Your task to perform on an android device: open chrome privacy settings Image 0: 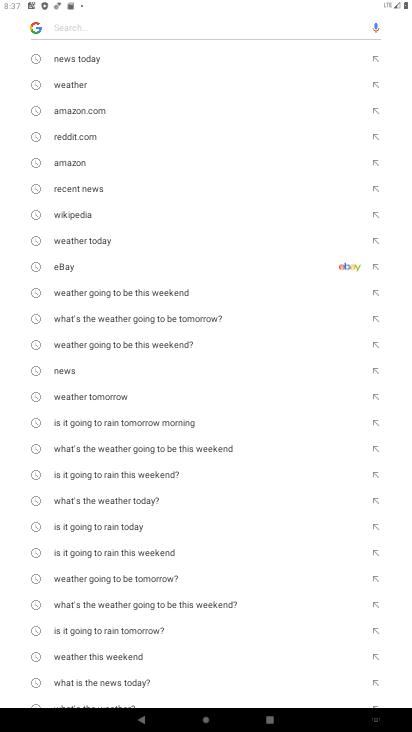
Step 0: press home button
Your task to perform on an android device: open chrome privacy settings Image 1: 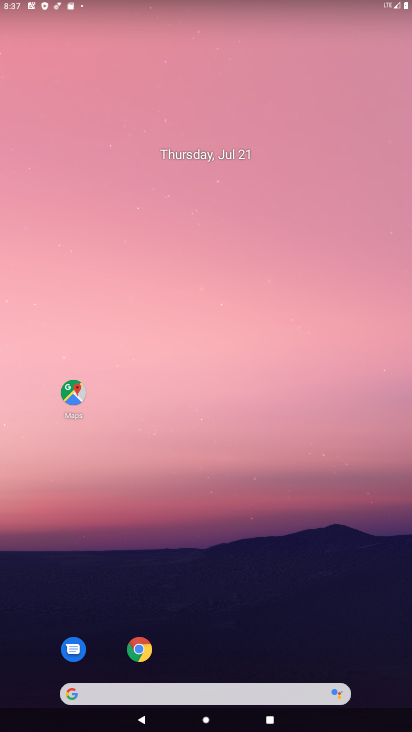
Step 1: drag from (187, 658) to (228, 64)
Your task to perform on an android device: open chrome privacy settings Image 2: 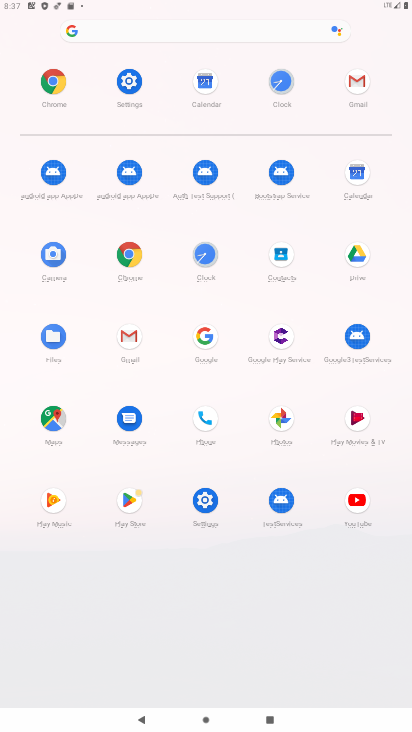
Step 2: click (124, 268)
Your task to perform on an android device: open chrome privacy settings Image 3: 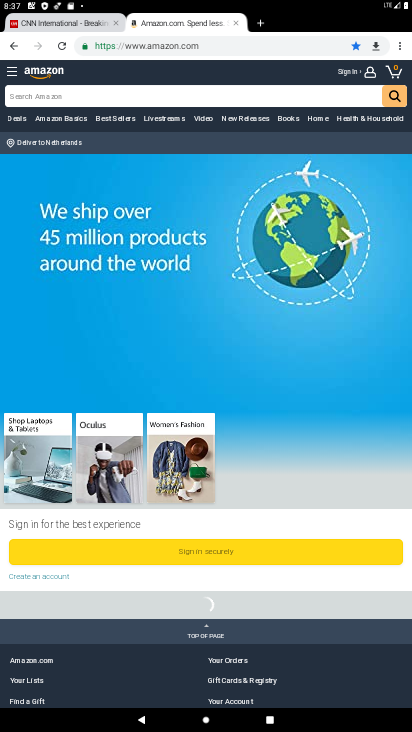
Step 3: click (396, 46)
Your task to perform on an android device: open chrome privacy settings Image 4: 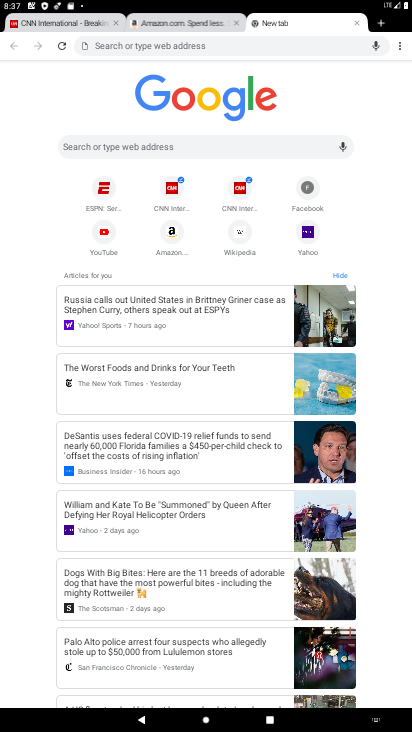
Step 4: click (117, 26)
Your task to perform on an android device: open chrome privacy settings Image 5: 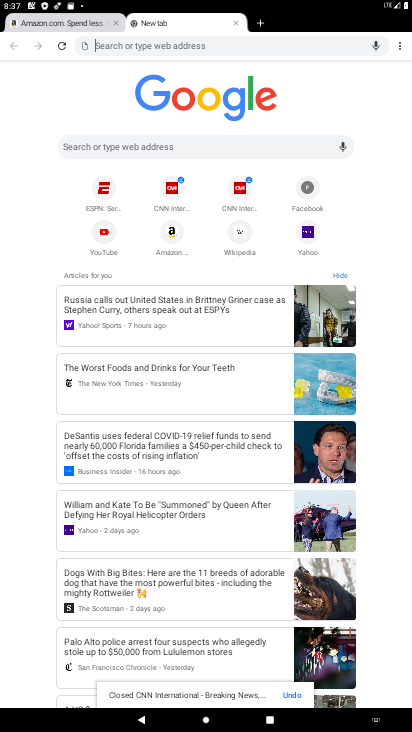
Step 5: click (116, 25)
Your task to perform on an android device: open chrome privacy settings Image 6: 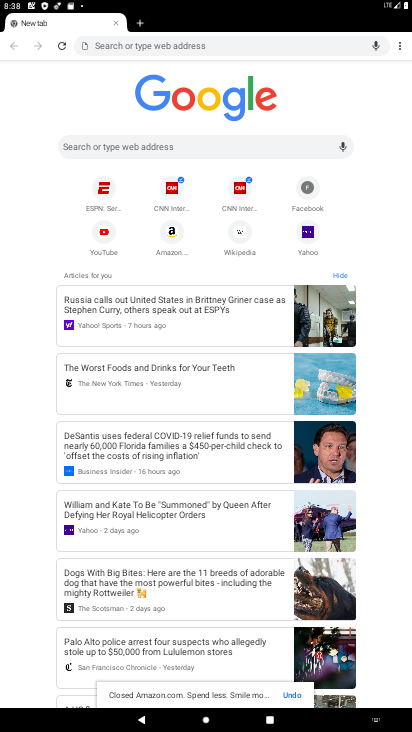
Step 6: click (401, 48)
Your task to perform on an android device: open chrome privacy settings Image 7: 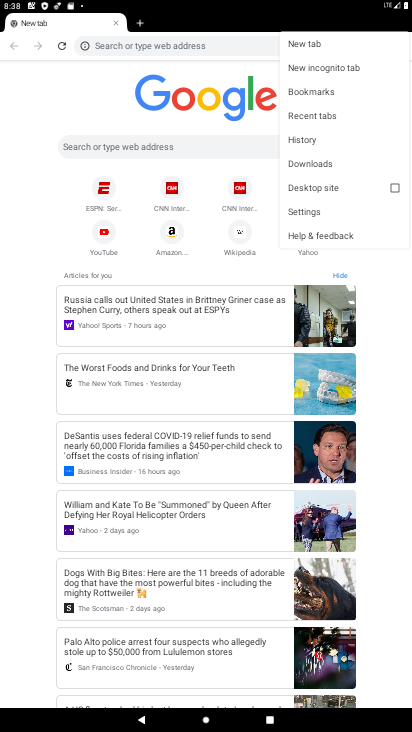
Step 7: click (309, 211)
Your task to perform on an android device: open chrome privacy settings Image 8: 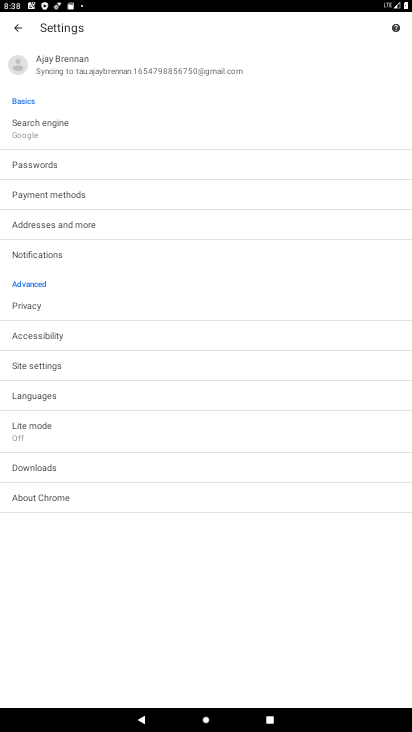
Step 8: click (39, 297)
Your task to perform on an android device: open chrome privacy settings Image 9: 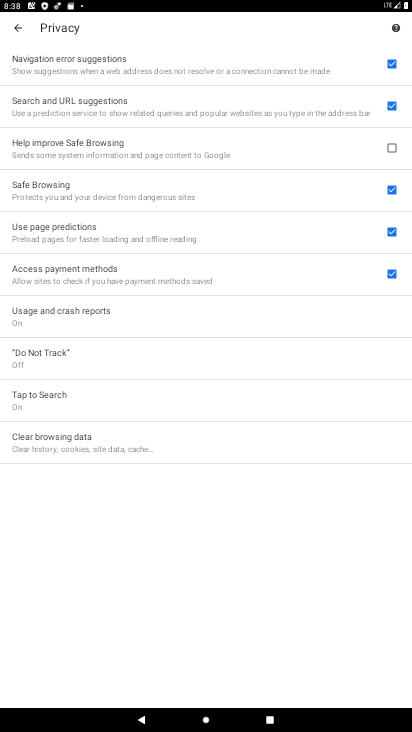
Step 9: task complete